Your task to perform on an android device: open app "Adobe Express: Graphic Design" Image 0: 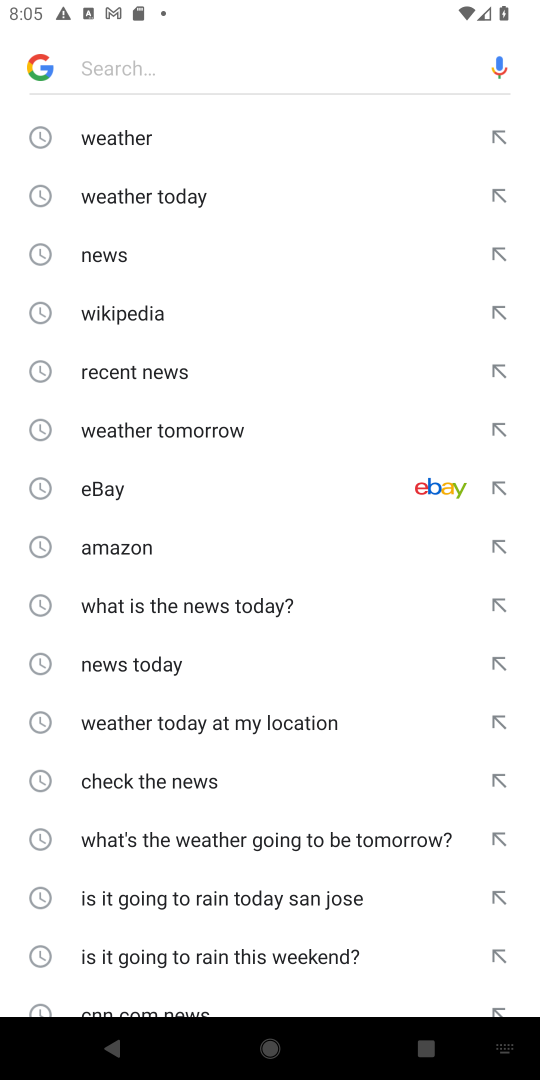
Step 0: press home button
Your task to perform on an android device: open app "Adobe Express: Graphic Design" Image 1: 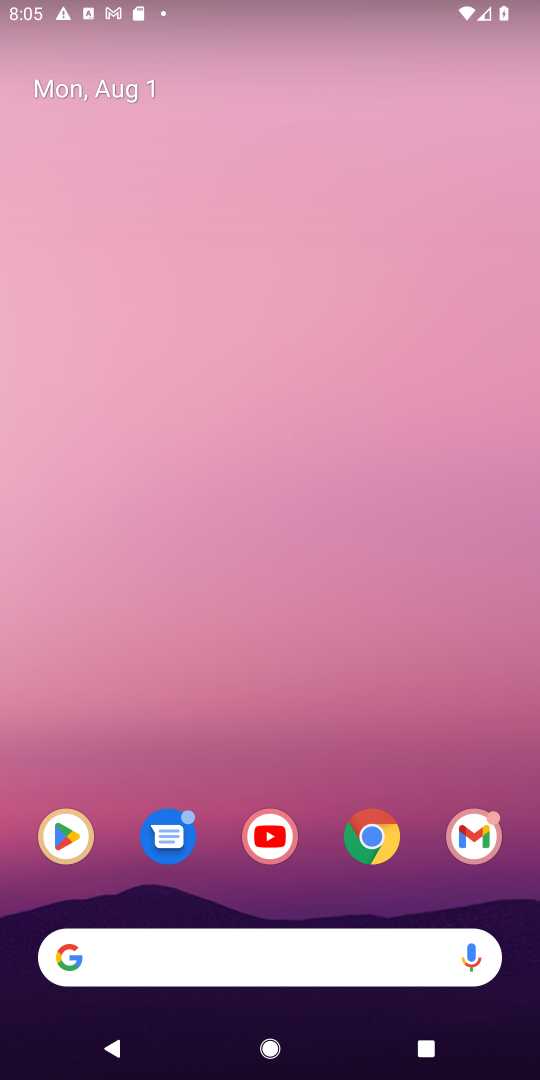
Step 1: click (59, 838)
Your task to perform on an android device: open app "Adobe Express: Graphic Design" Image 2: 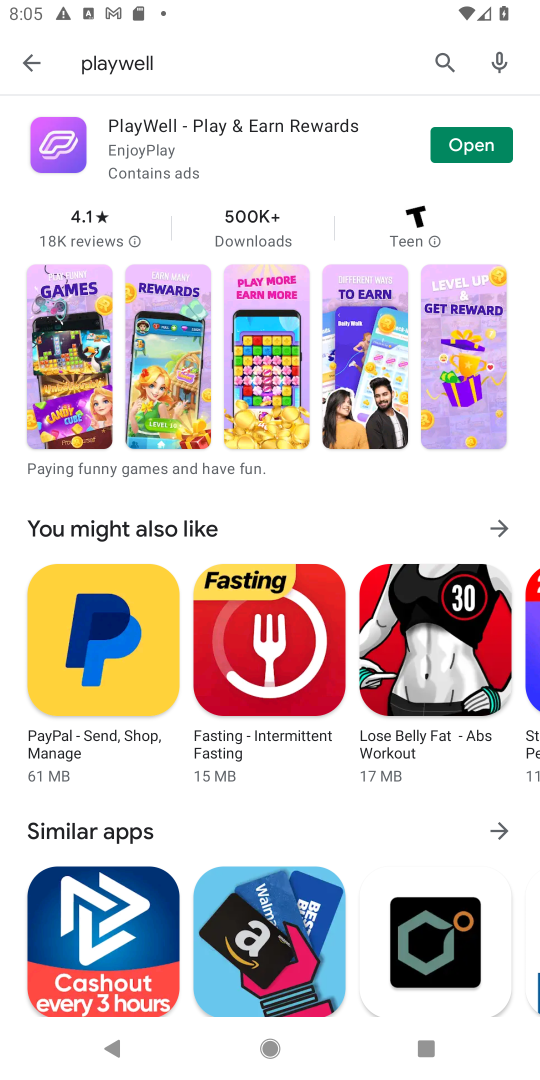
Step 2: click (446, 63)
Your task to perform on an android device: open app "Adobe Express: Graphic Design" Image 3: 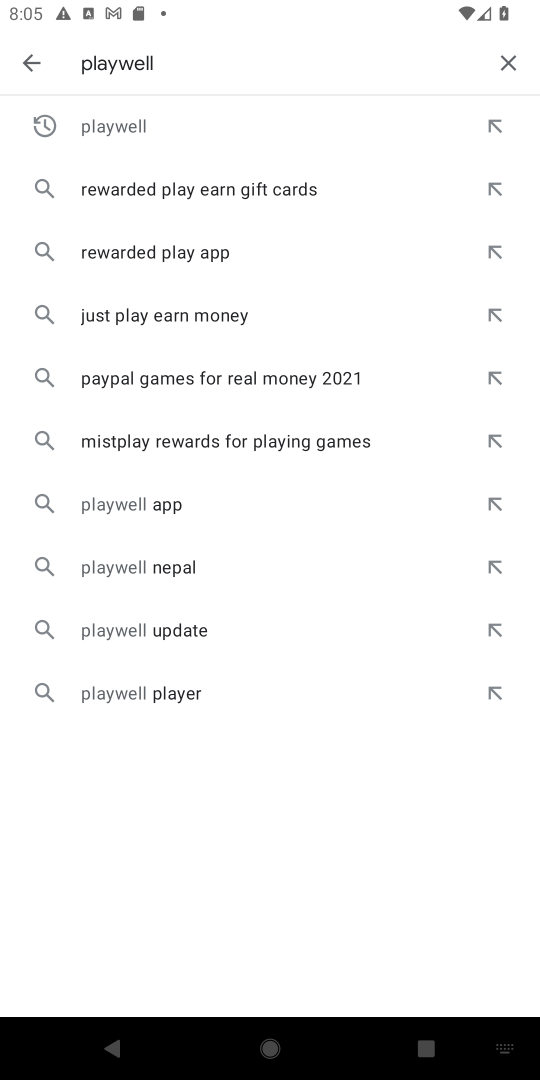
Step 3: click (508, 63)
Your task to perform on an android device: open app "Adobe Express: Graphic Design" Image 4: 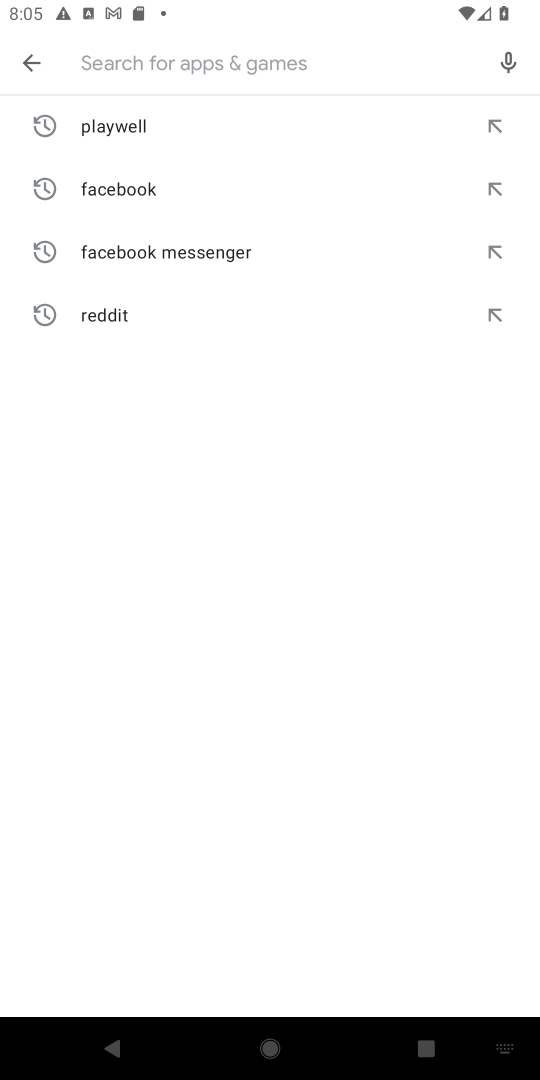
Step 4: type "Adobe Express: Graphic Design"
Your task to perform on an android device: open app "Adobe Express: Graphic Design" Image 5: 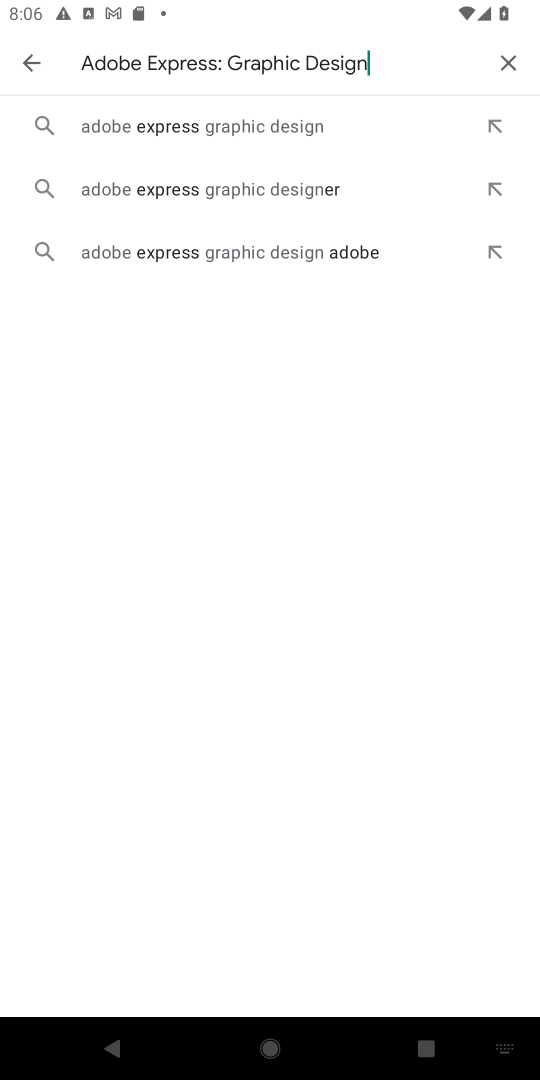
Step 5: click (306, 127)
Your task to perform on an android device: open app "Adobe Express: Graphic Design" Image 6: 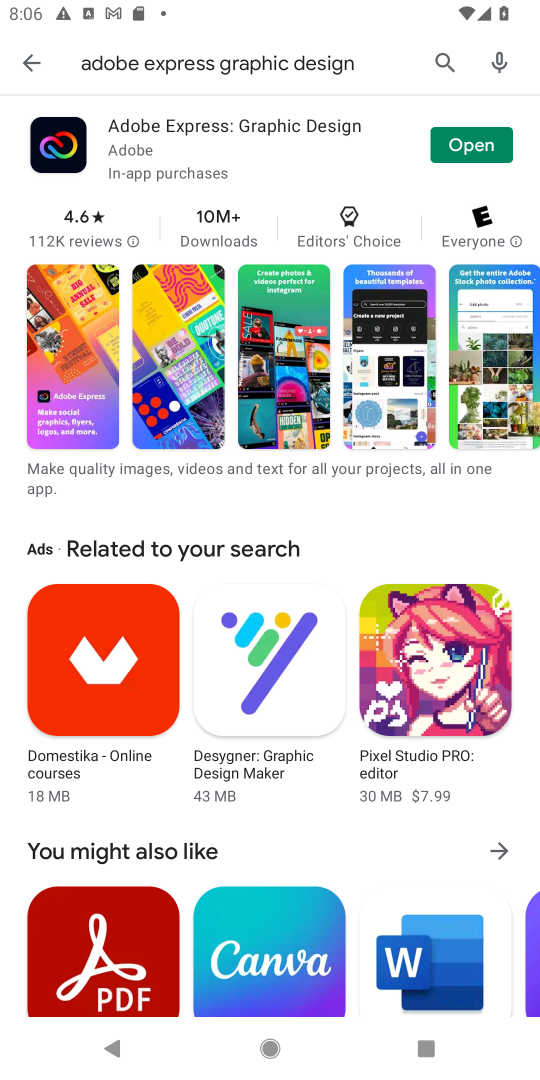
Step 6: click (440, 144)
Your task to perform on an android device: open app "Adobe Express: Graphic Design" Image 7: 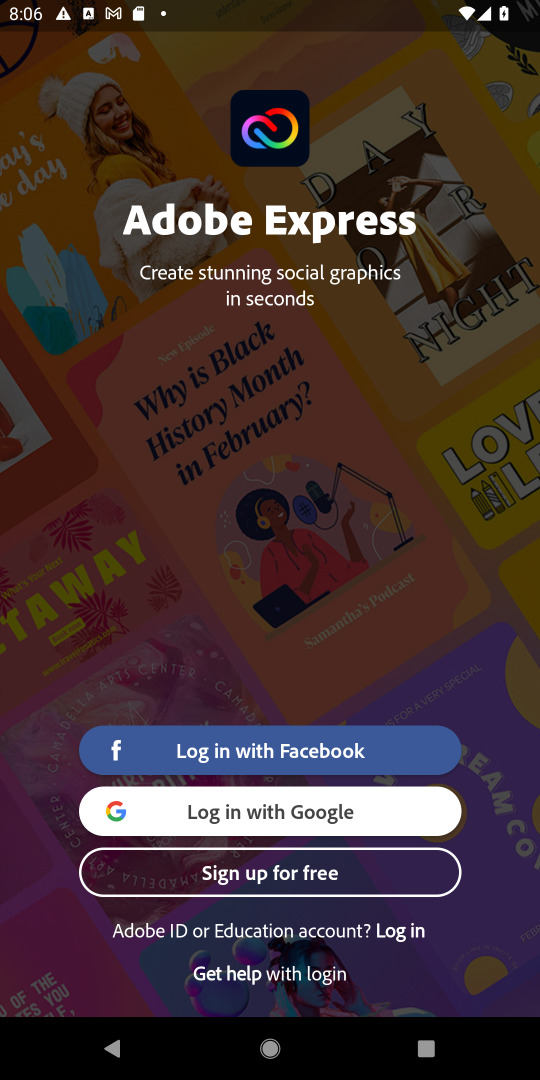
Step 7: task complete